Your task to perform on an android device: Search for hotels in San Francisco Image 0: 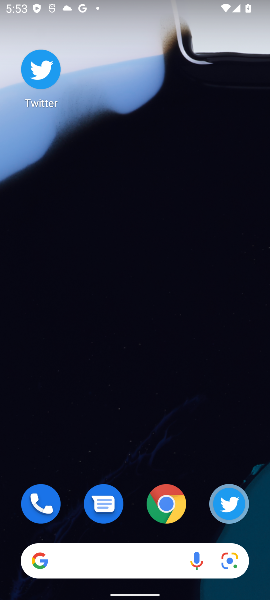
Step 0: click (90, 575)
Your task to perform on an android device: Search for hotels in San Francisco Image 1: 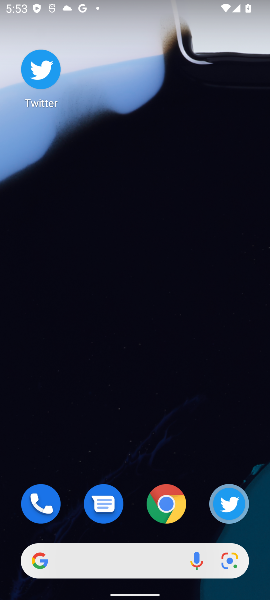
Step 1: click (88, 572)
Your task to perform on an android device: Search for hotels in San Francisco Image 2: 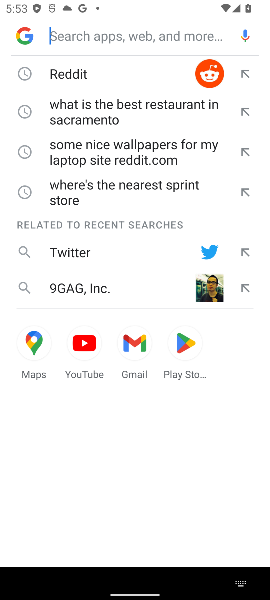
Step 2: click (72, 36)
Your task to perform on an android device: Search for hotels in San Francisco Image 3: 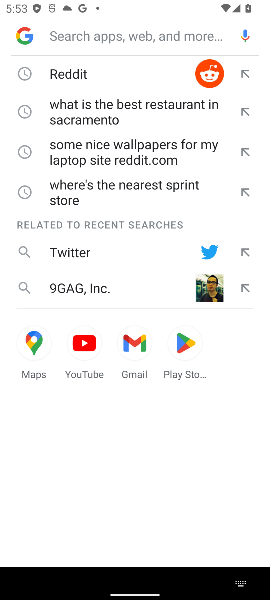
Step 3: type "hotels in San Francisco"
Your task to perform on an android device: Search for hotels in San Francisco Image 4: 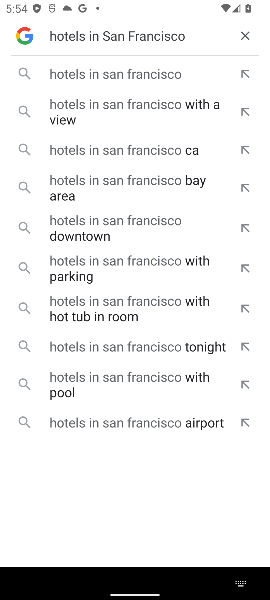
Step 4: click (108, 65)
Your task to perform on an android device: Search for hotels in San Francisco Image 5: 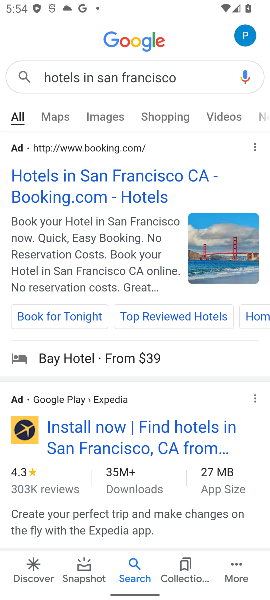
Step 5: task complete